Your task to perform on an android device: see creations saved in the google photos Image 0: 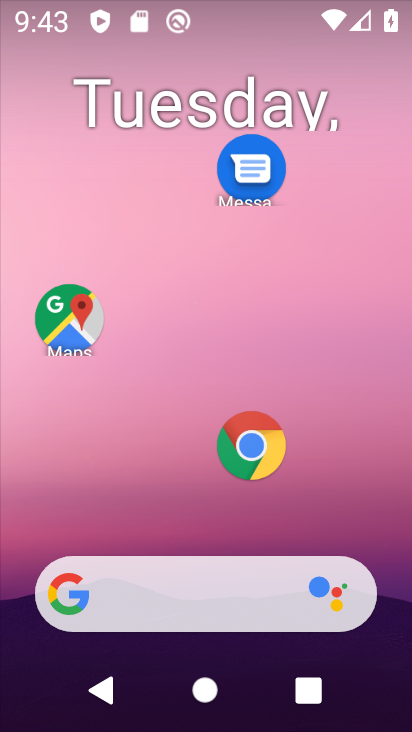
Step 0: drag from (154, 420) to (290, 7)
Your task to perform on an android device: see creations saved in the google photos Image 1: 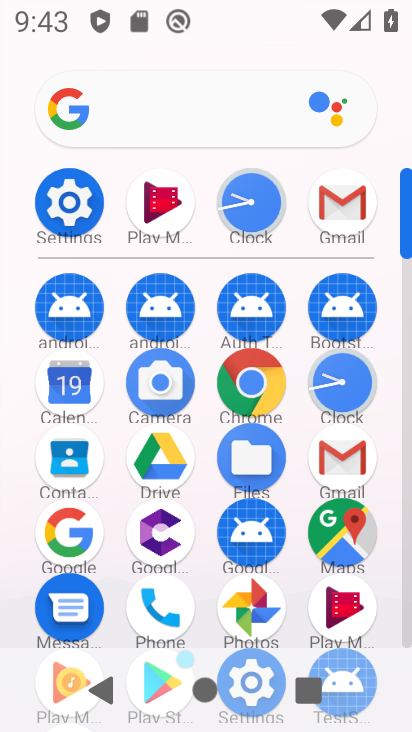
Step 1: click (245, 615)
Your task to perform on an android device: see creations saved in the google photos Image 2: 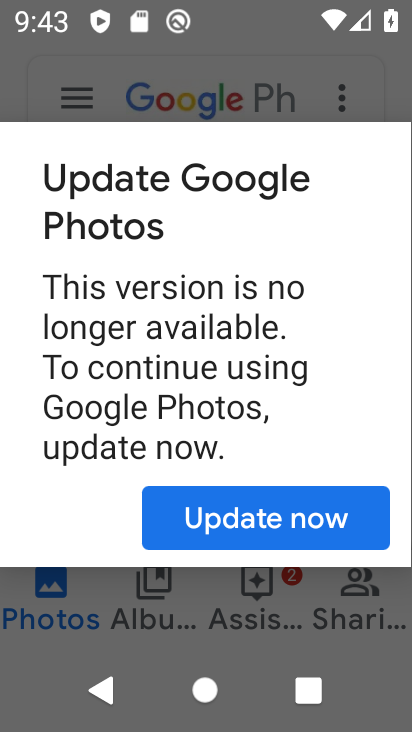
Step 2: click (101, 619)
Your task to perform on an android device: see creations saved in the google photos Image 3: 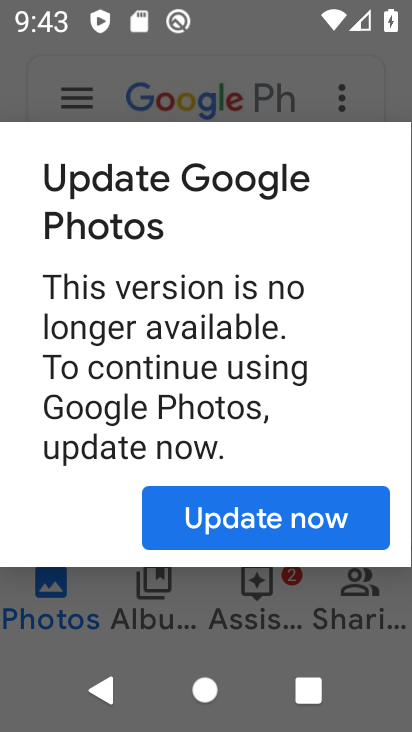
Step 3: click (92, 667)
Your task to perform on an android device: see creations saved in the google photos Image 4: 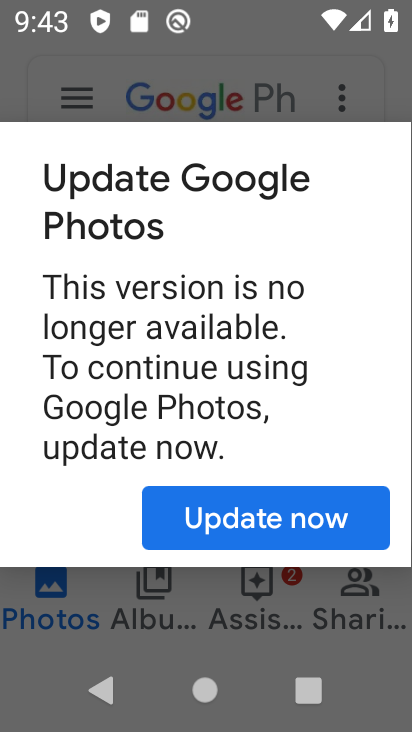
Step 4: click (110, 698)
Your task to perform on an android device: see creations saved in the google photos Image 5: 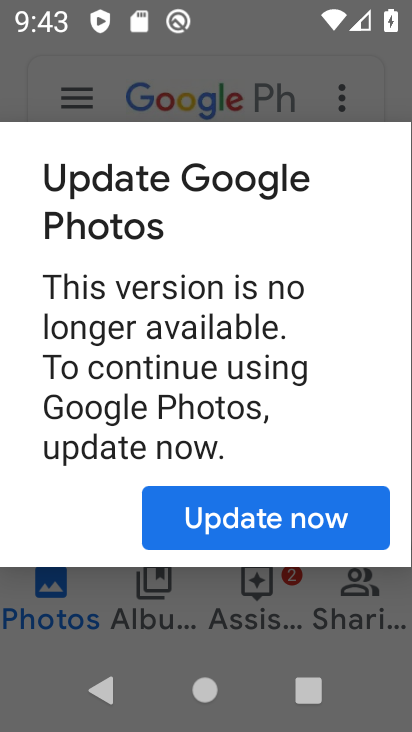
Step 5: click (103, 688)
Your task to perform on an android device: see creations saved in the google photos Image 6: 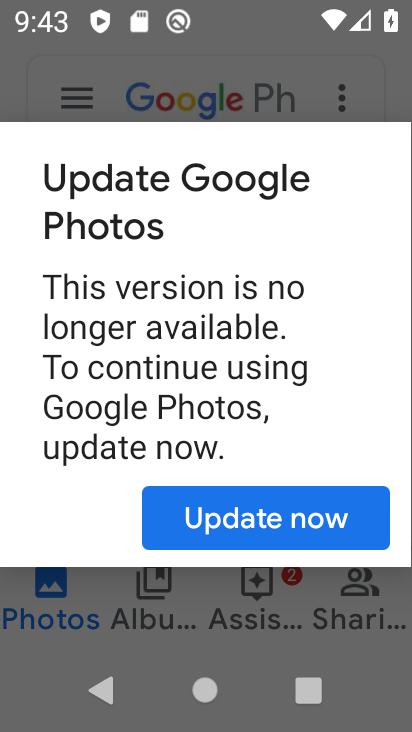
Step 6: click (101, 687)
Your task to perform on an android device: see creations saved in the google photos Image 7: 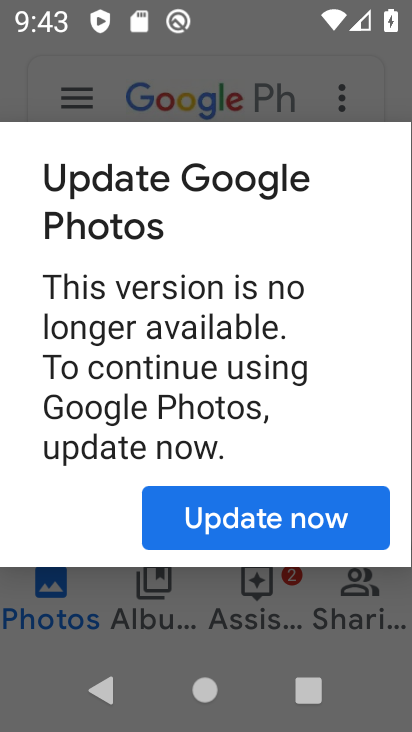
Step 7: click (229, 524)
Your task to perform on an android device: see creations saved in the google photos Image 8: 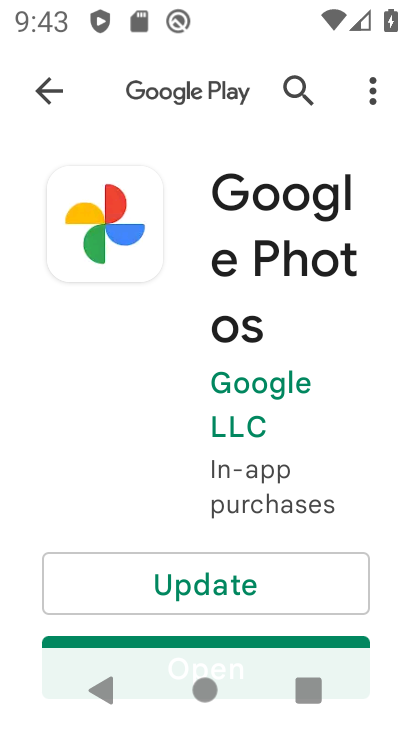
Step 8: drag from (173, 517) to (285, 111)
Your task to perform on an android device: see creations saved in the google photos Image 9: 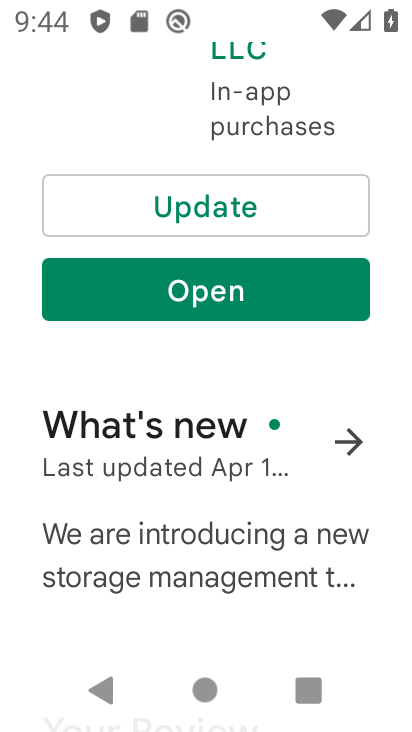
Step 9: click (195, 292)
Your task to perform on an android device: see creations saved in the google photos Image 10: 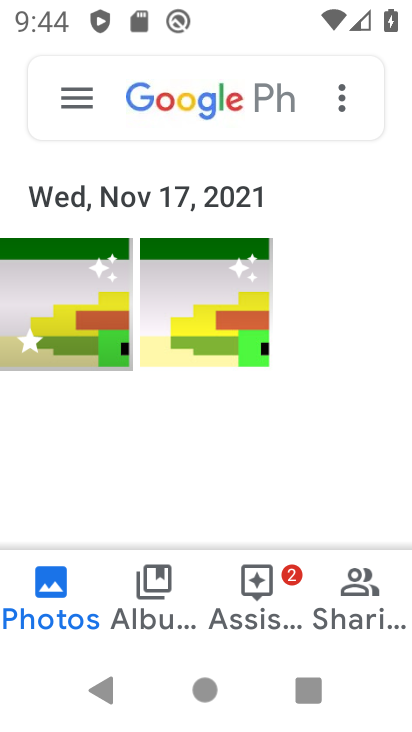
Step 10: click (67, 96)
Your task to perform on an android device: see creations saved in the google photos Image 11: 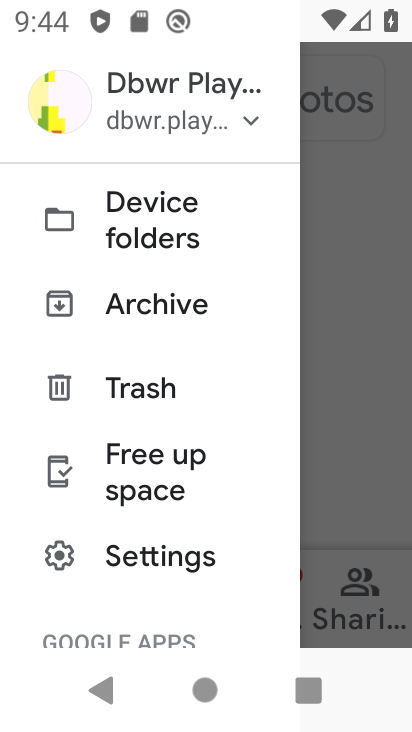
Step 11: click (175, 296)
Your task to perform on an android device: see creations saved in the google photos Image 12: 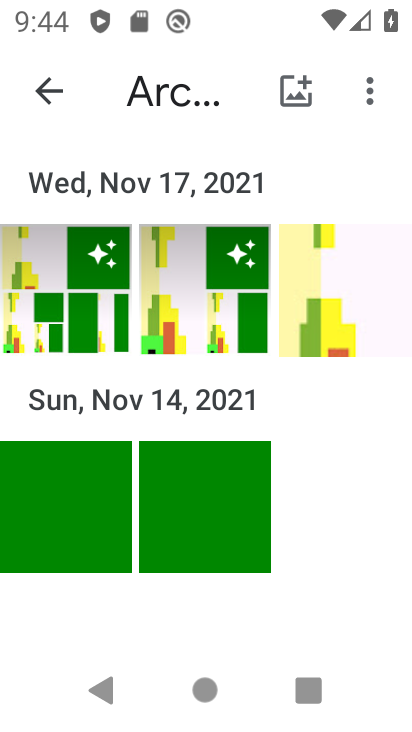
Step 12: task complete